Your task to perform on an android device: What's on my calendar today? Image 0: 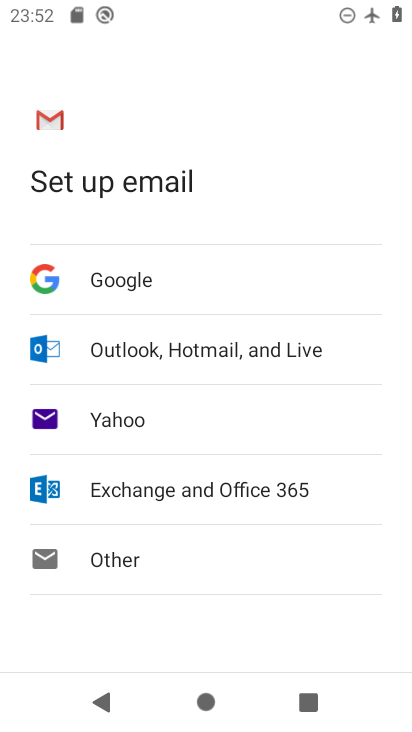
Step 0: press home button
Your task to perform on an android device: What's on my calendar today? Image 1: 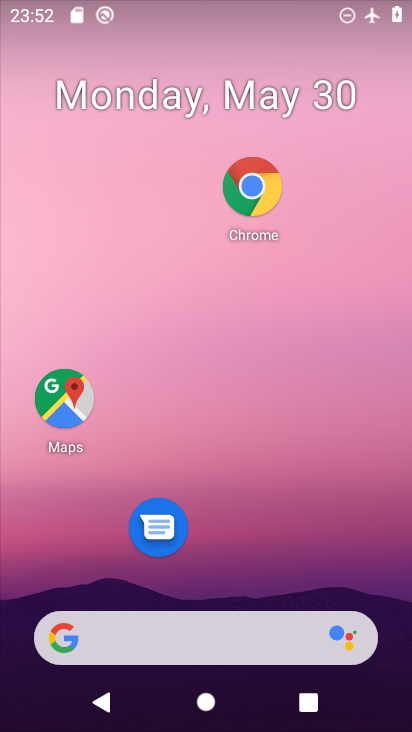
Step 1: drag from (267, 535) to (288, 296)
Your task to perform on an android device: What's on my calendar today? Image 2: 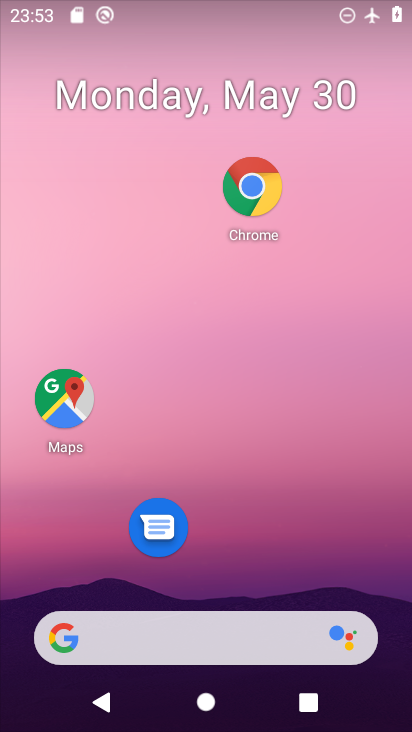
Step 2: drag from (233, 598) to (246, 276)
Your task to perform on an android device: What's on my calendar today? Image 3: 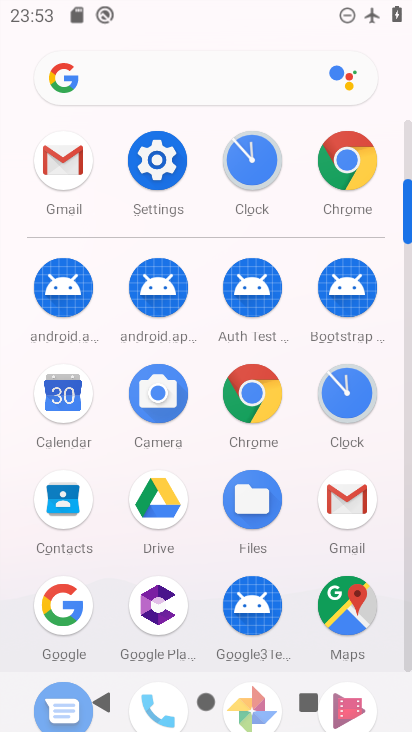
Step 3: click (64, 383)
Your task to perform on an android device: What's on my calendar today? Image 4: 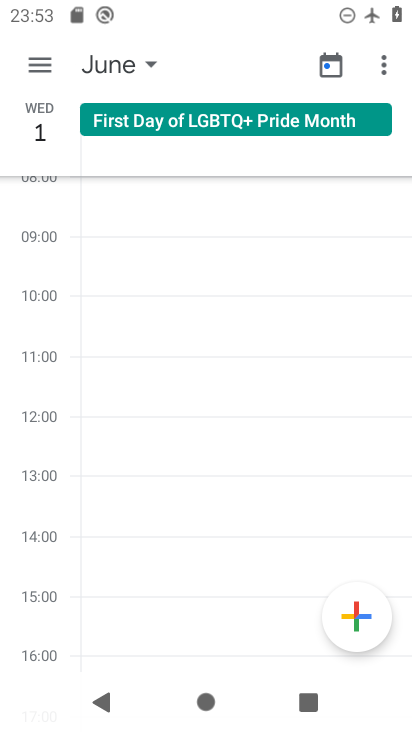
Step 4: click (40, 65)
Your task to perform on an android device: What's on my calendar today? Image 5: 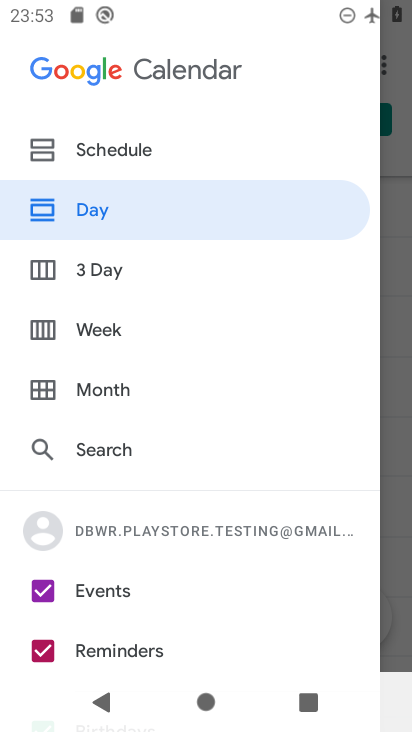
Step 5: click (120, 381)
Your task to perform on an android device: What's on my calendar today? Image 6: 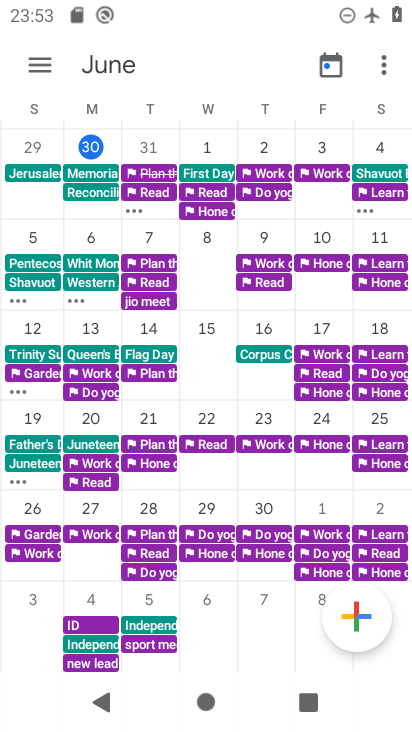
Step 6: click (139, 156)
Your task to perform on an android device: What's on my calendar today? Image 7: 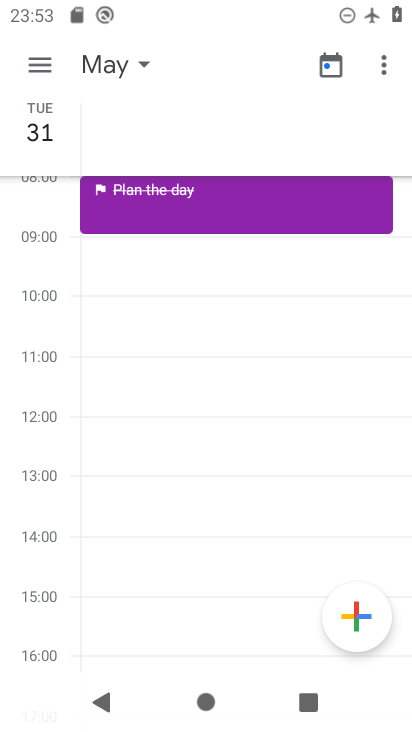
Step 7: task complete